Your task to perform on an android device: visit the assistant section in the google photos Image 0: 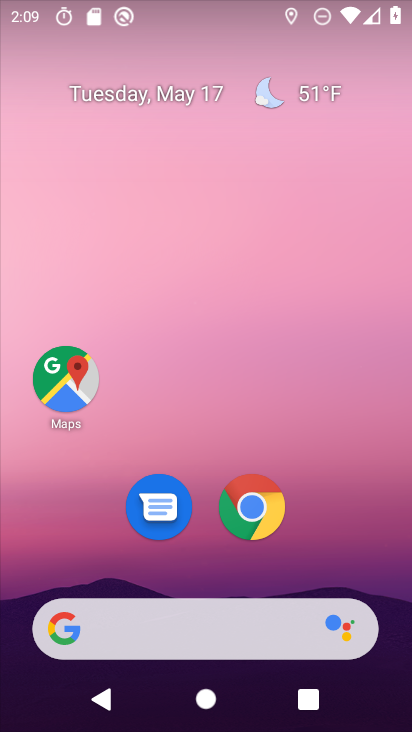
Step 0: drag from (211, 562) to (272, 101)
Your task to perform on an android device: visit the assistant section in the google photos Image 1: 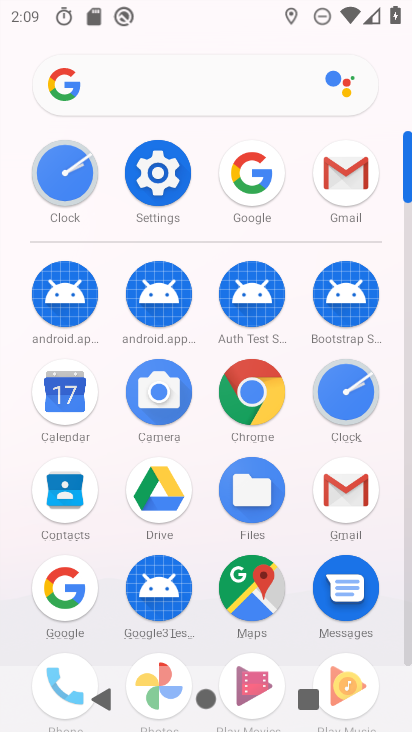
Step 1: drag from (190, 608) to (235, 301)
Your task to perform on an android device: visit the assistant section in the google photos Image 2: 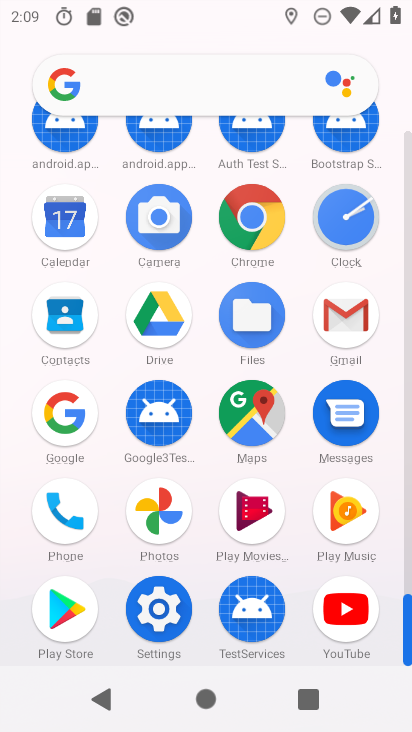
Step 2: click (156, 512)
Your task to perform on an android device: visit the assistant section in the google photos Image 3: 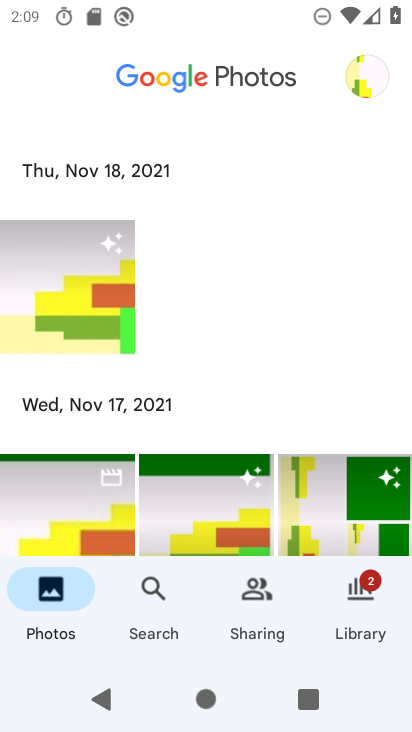
Step 3: click (355, 602)
Your task to perform on an android device: visit the assistant section in the google photos Image 4: 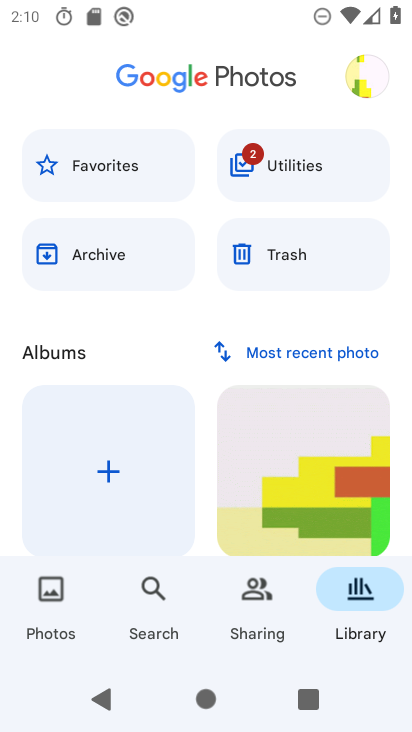
Step 4: task complete